Your task to perform on an android device: Search for pizza restaurants on Maps Image 0: 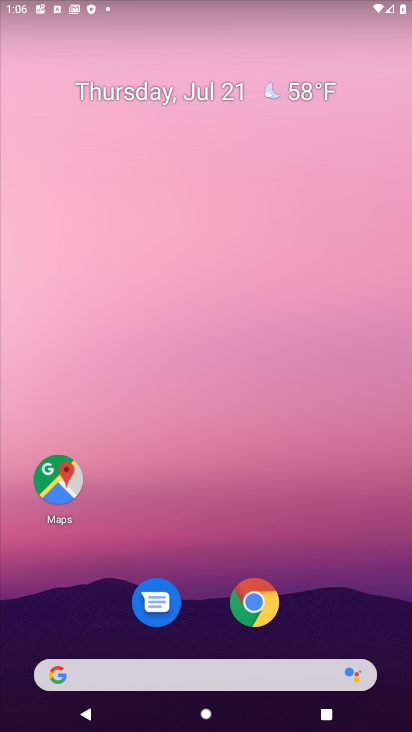
Step 0: drag from (375, 621) to (5, 83)
Your task to perform on an android device: Search for pizza restaurants on Maps Image 1: 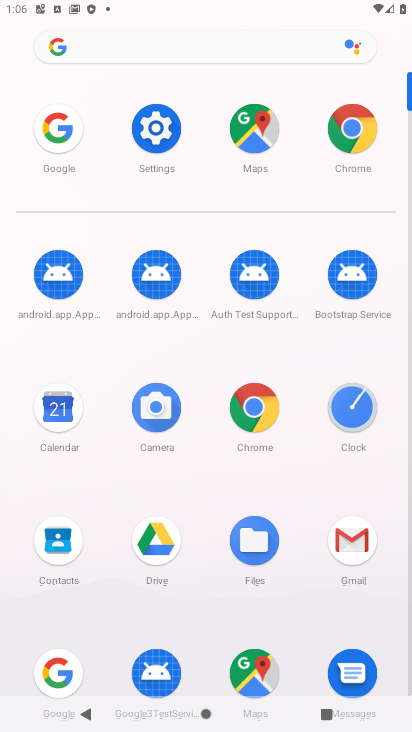
Step 1: click (262, 672)
Your task to perform on an android device: Search for pizza restaurants on Maps Image 2: 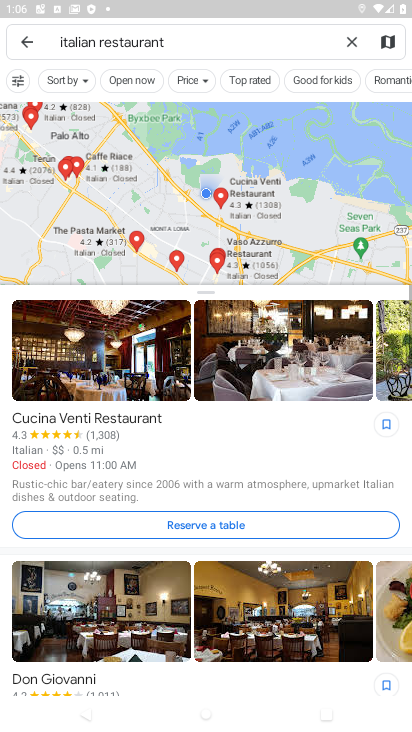
Step 2: click (351, 43)
Your task to perform on an android device: Search for pizza restaurants on Maps Image 3: 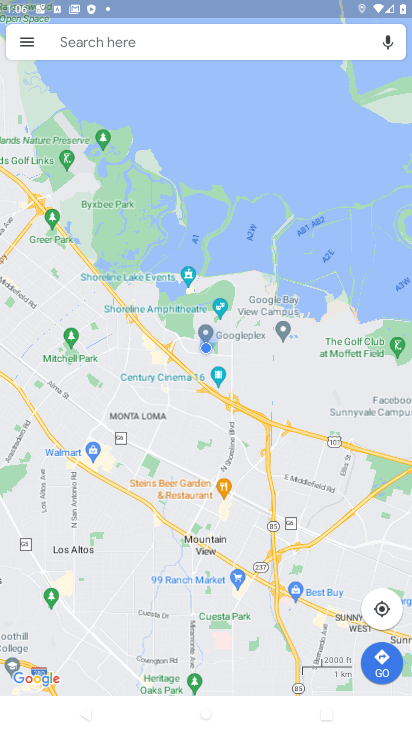
Step 3: click (124, 44)
Your task to perform on an android device: Search for pizza restaurants on Maps Image 4: 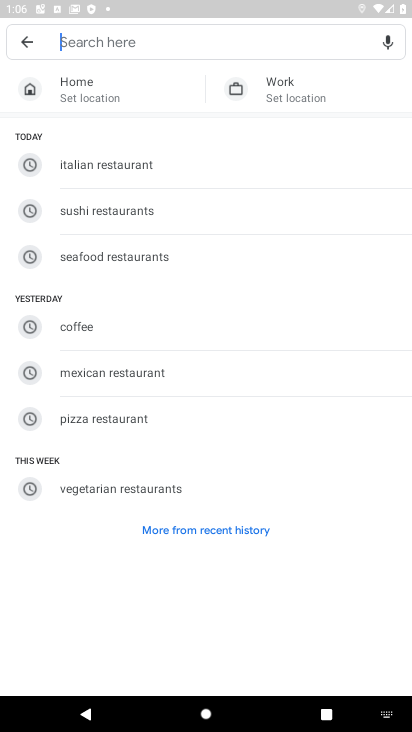
Step 4: click (96, 425)
Your task to perform on an android device: Search for pizza restaurants on Maps Image 5: 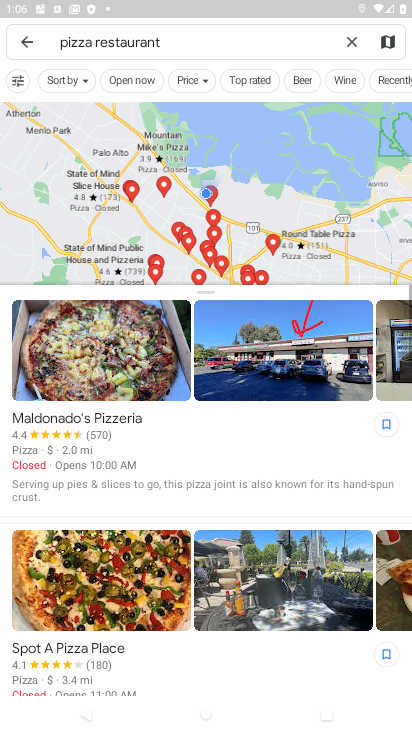
Step 5: task complete